Your task to perform on an android device: open app "Pluto TV - Live TV and Movies" Image 0: 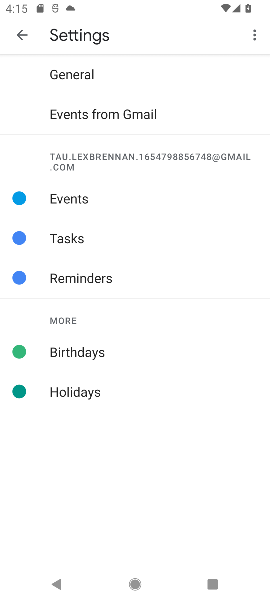
Step 0: press home button
Your task to perform on an android device: open app "Pluto TV - Live TV and Movies" Image 1: 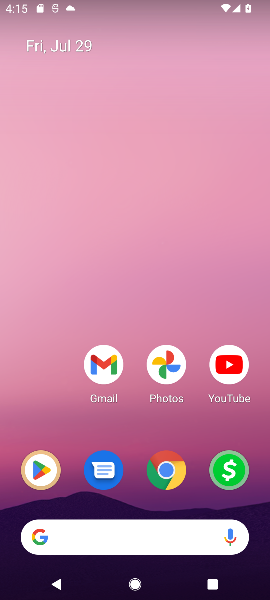
Step 1: click (53, 473)
Your task to perform on an android device: open app "Pluto TV - Live TV and Movies" Image 2: 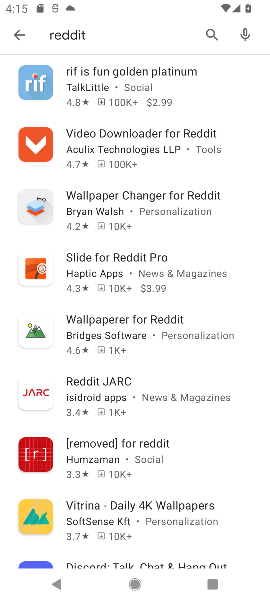
Step 2: click (222, 31)
Your task to perform on an android device: open app "Pluto TV - Live TV and Movies" Image 3: 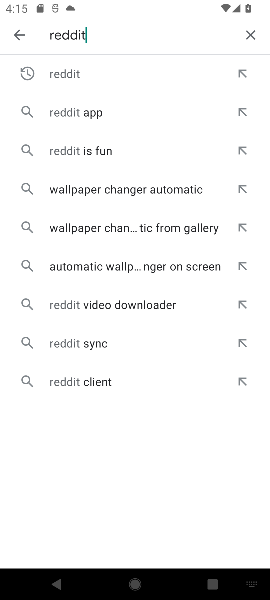
Step 3: click (253, 35)
Your task to perform on an android device: open app "Pluto TV - Live TV and Movies" Image 4: 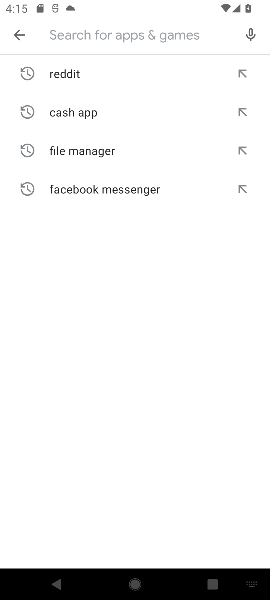
Step 4: click (199, 38)
Your task to perform on an android device: open app "Pluto TV - Live TV and Movies" Image 5: 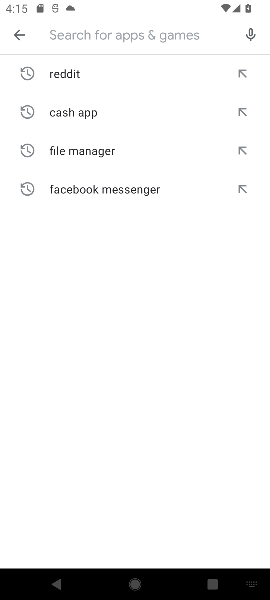
Step 5: type "Pluto TV - Live TV and Movies"
Your task to perform on an android device: open app "Pluto TV - Live TV and Movies" Image 6: 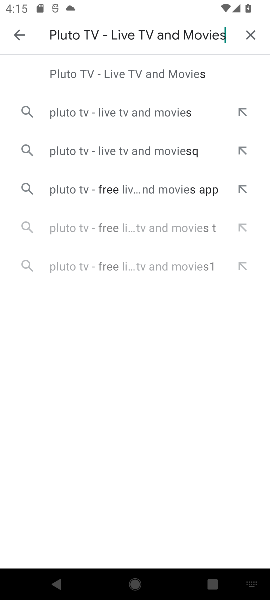
Step 6: type ""
Your task to perform on an android device: open app "Pluto TV - Live TV and Movies" Image 7: 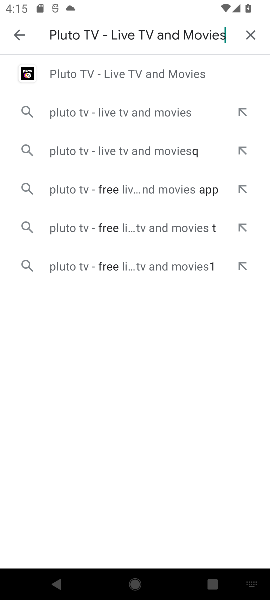
Step 7: click (165, 75)
Your task to perform on an android device: open app "Pluto TV - Live TV and Movies" Image 8: 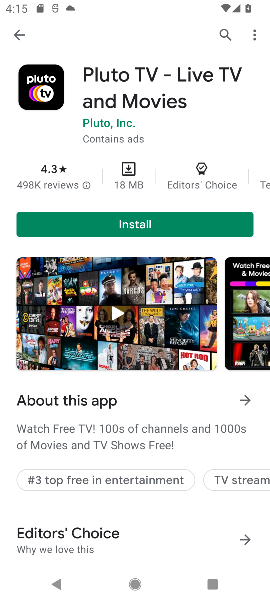
Step 8: task complete